Your task to perform on an android device: snooze an email in the gmail app Image 0: 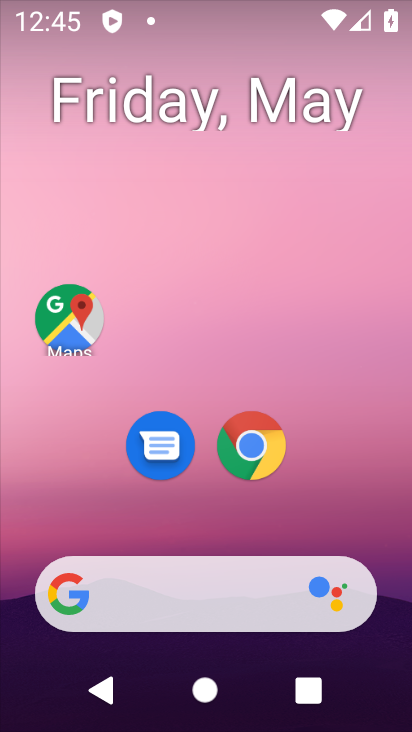
Step 0: drag from (392, 613) to (330, 99)
Your task to perform on an android device: snooze an email in the gmail app Image 1: 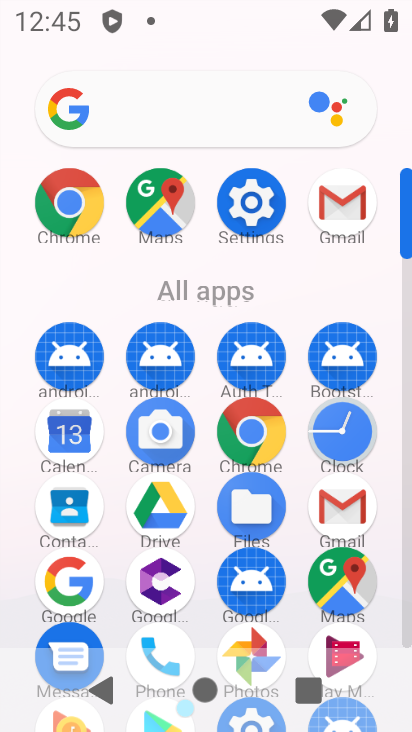
Step 1: click (407, 618)
Your task to perform on an android device: snooze an email in the gmail app Image 2: 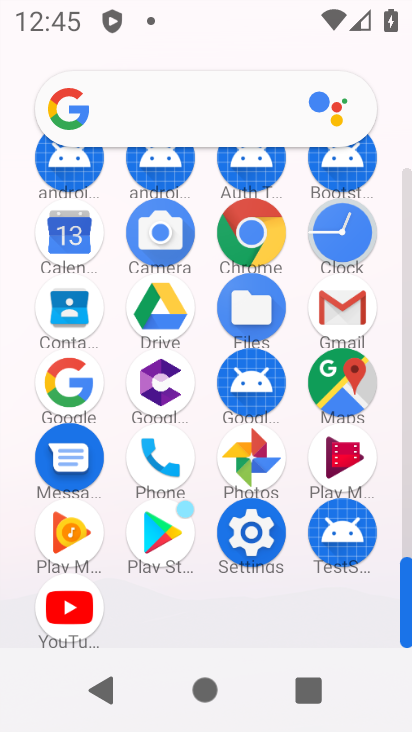
Step 2: click (340, 307)
Your task to perform on an android device: snooze an email in the gmail app Image 3: 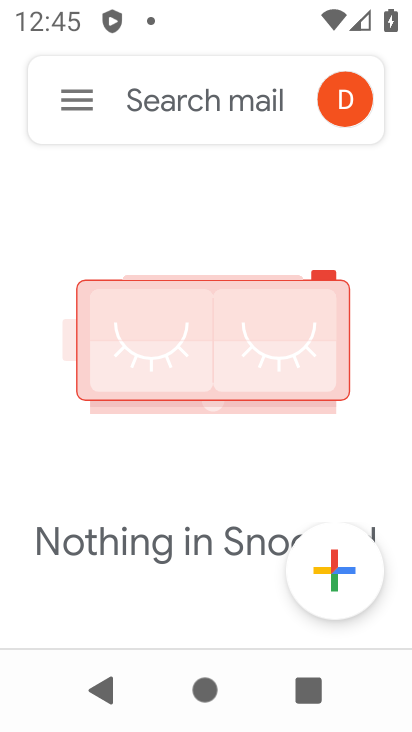
Step 3: click (70, 93)
Your task to perform on an android device: snooze an email in the gmail app Image 4: 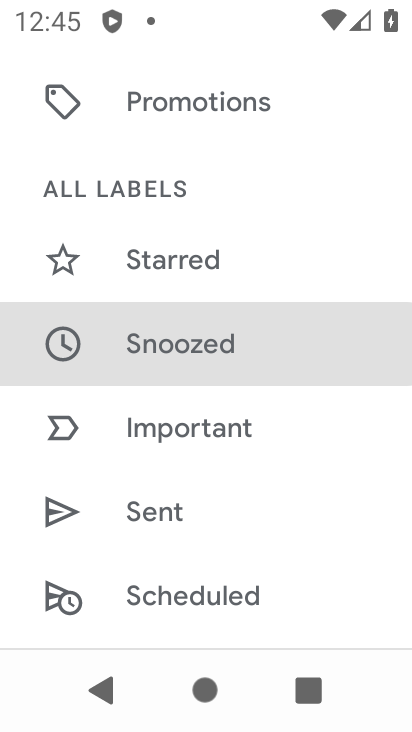
Step 4: drag from (305, 609) to (332, 166)
Your task to perform on an android device: snooze an email in the gmail app Image 5: 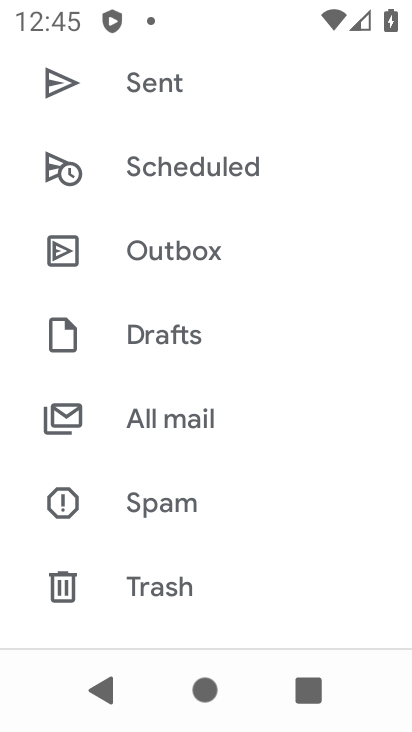
Step 5: click (145, 412)
Your task to perform on an android device: snooze an email in the gmail app Image 6: 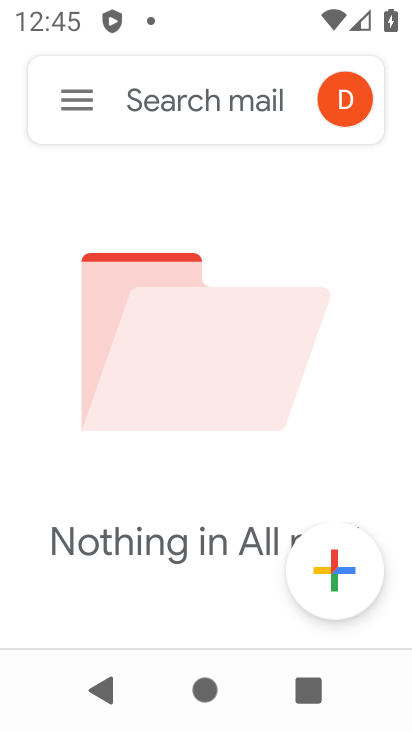
Step 6: task complete